Your task to perform on an android device: open app "Google News" (install if not already installed) Image 0: 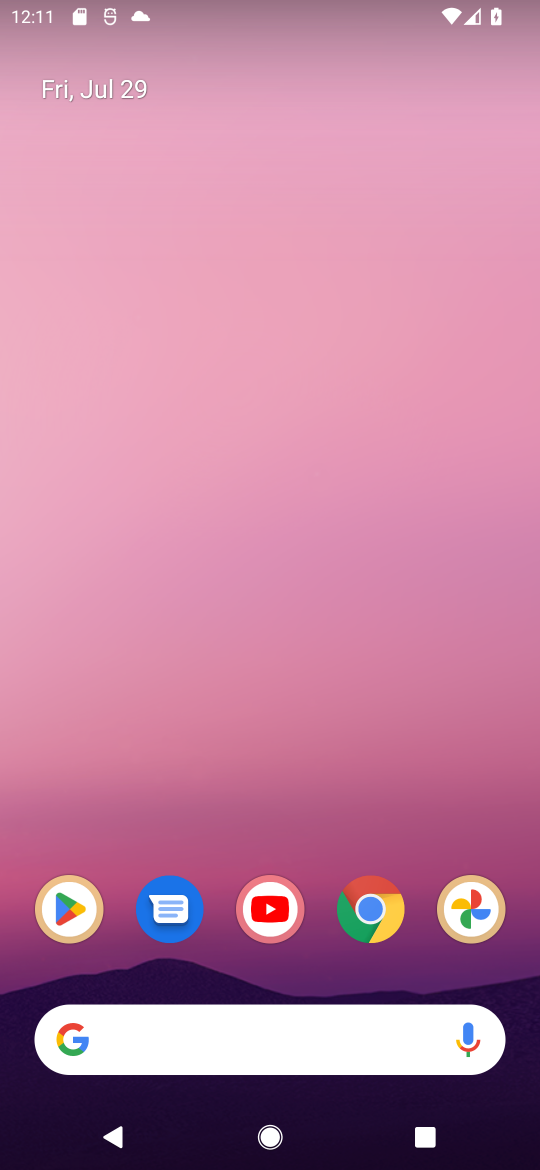
Step 0: press home button
Your task to perform on an android device: open app "Google News" (install if not already installed) Image 1: 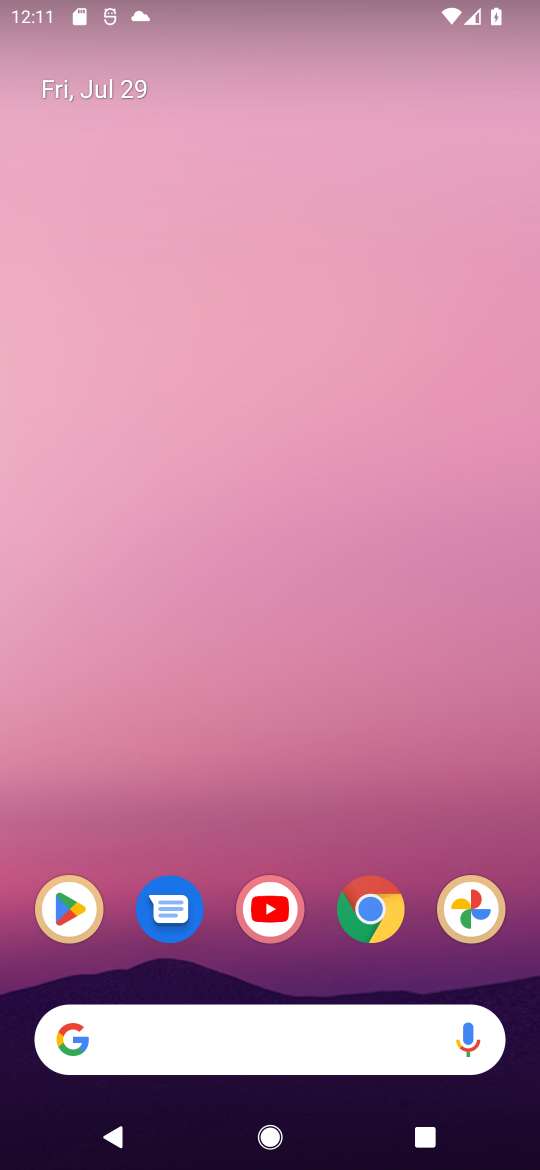
Step 1: click (60, 917)
Your task to perform on an android device: open app "Google News" (install if not already installed) Image 2: 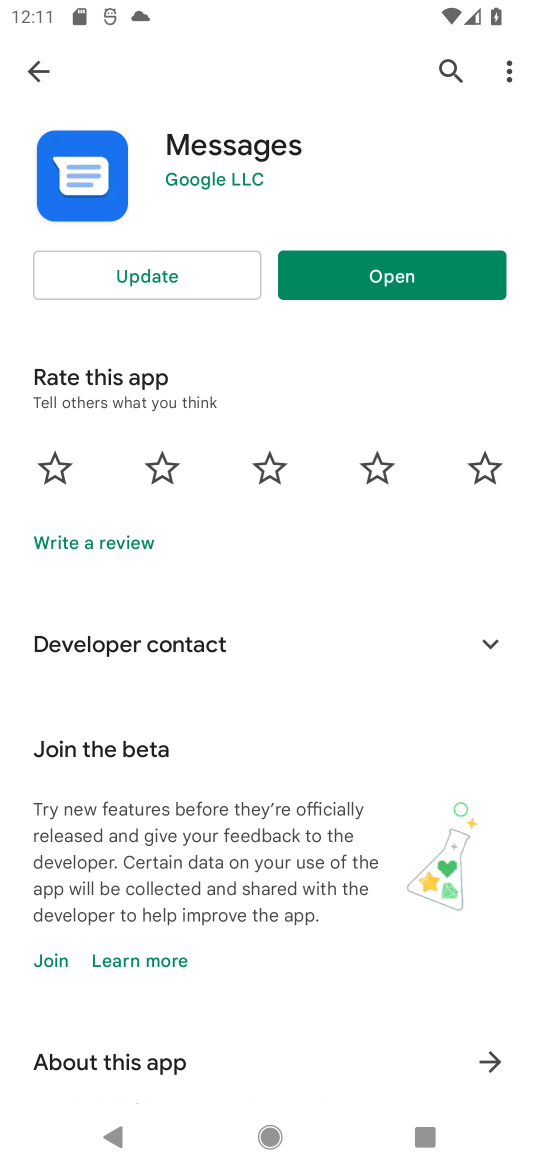
Step 2: click (453, 57)
Your task to perform on an android device: open app "Google News" (install if not already installed) Image 3: 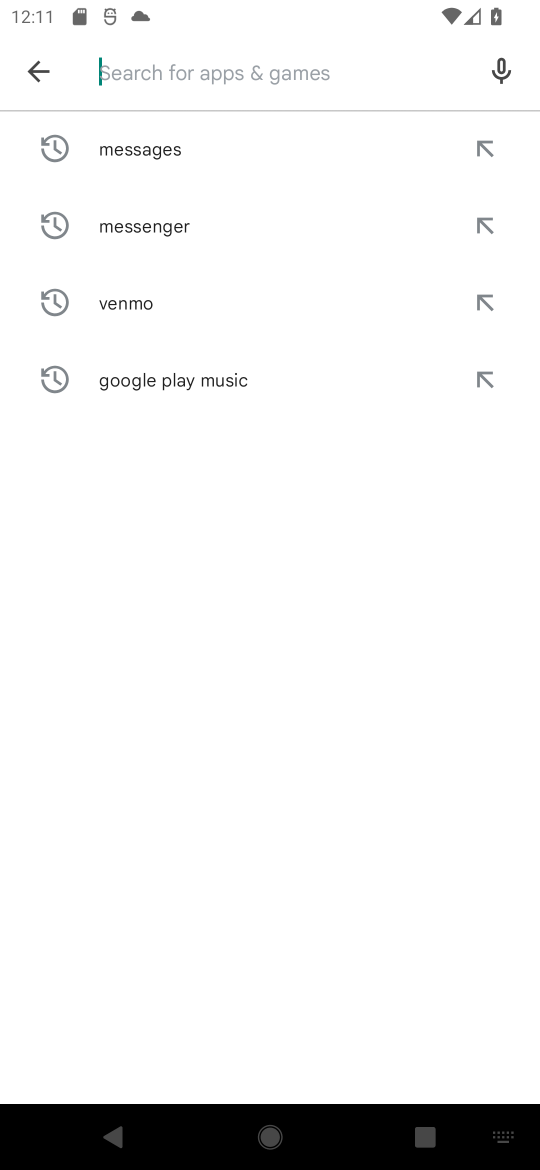
Step 3: type "Google News"
Your task to perform on an android device: open app "Google News" (install if not already installed) Image 4: 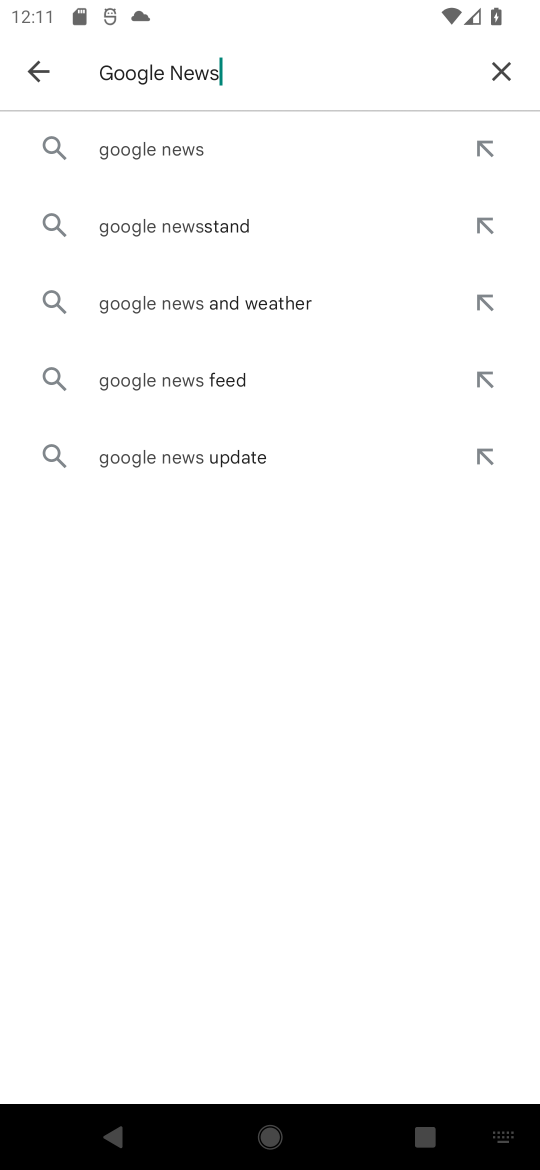
Step 4: click (148, 151)
Your task to perform on an android device: open app "Google News" (install if not already installed) Image 5: 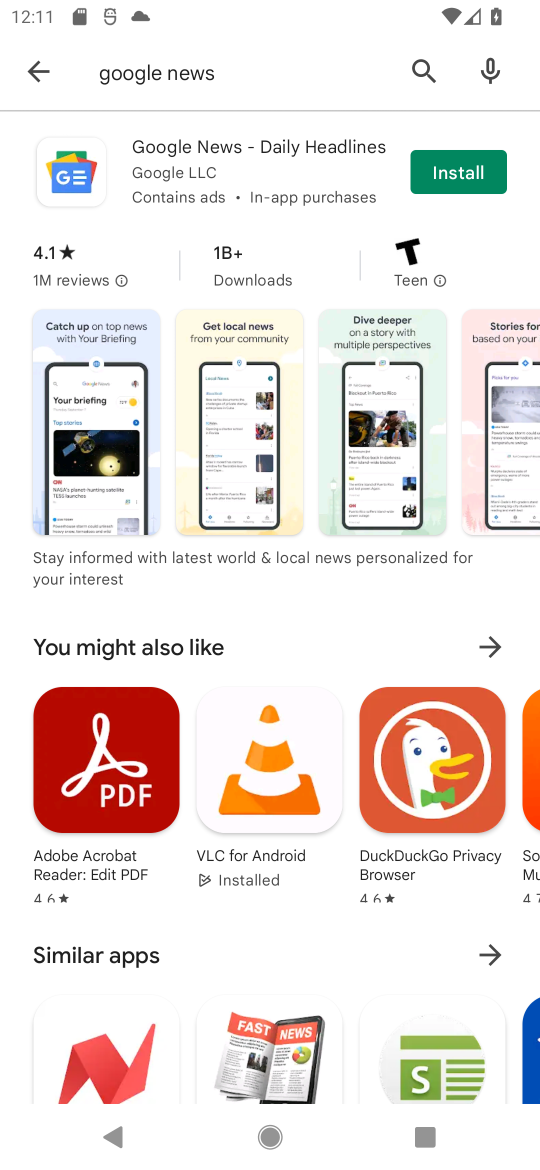
Step 5: click (447, 179)
Your task to perform on an android device: open app "Google News" (install if not already installed) Image 6: 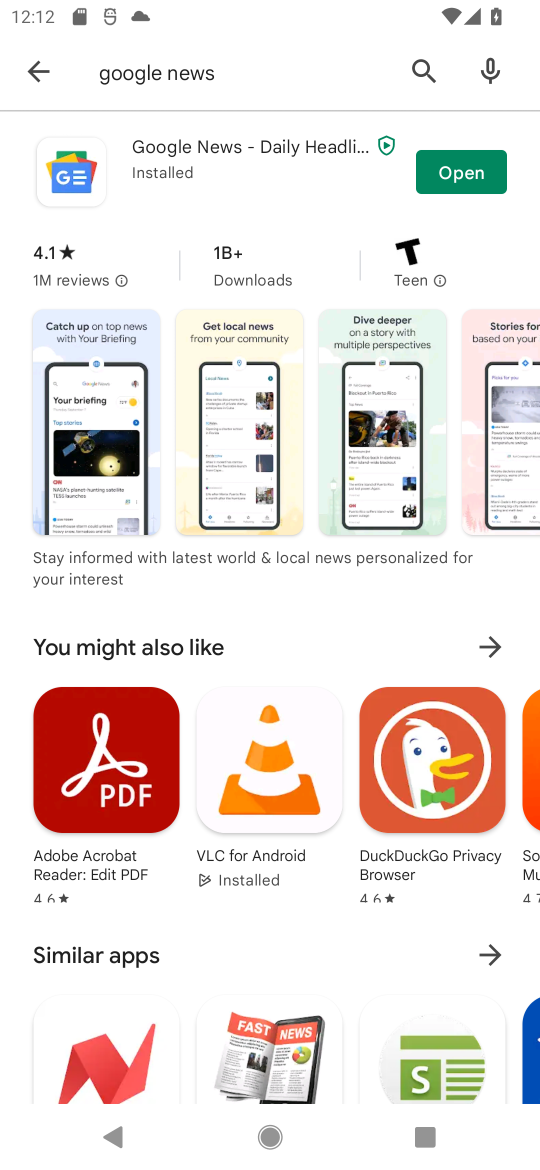
Step 6: click (442, 175)
Your task to perform on an android device: open app "Google News" (install if not already installed) Image 7: 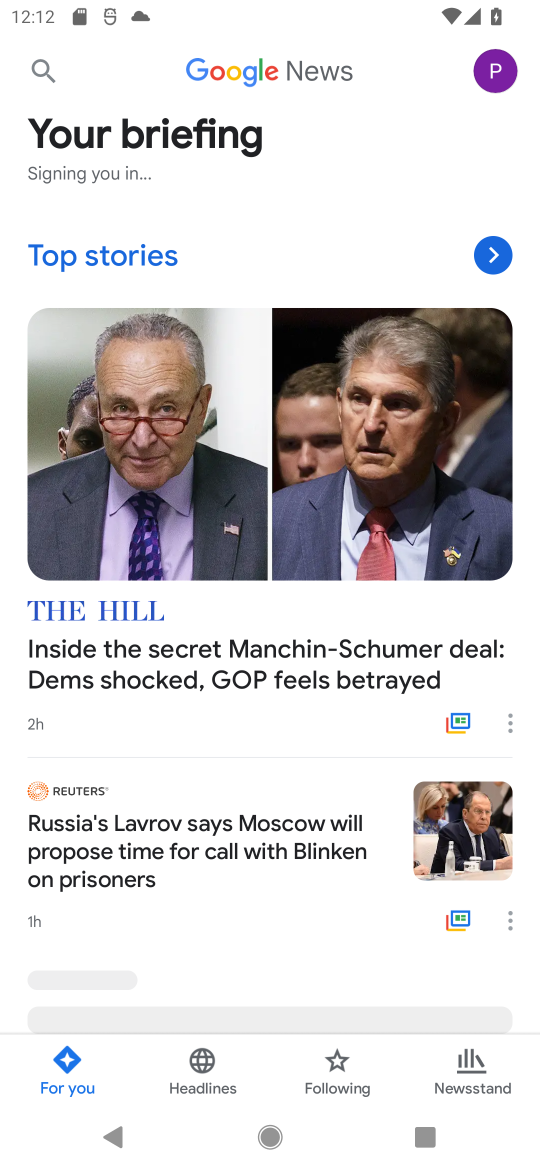
Step 7: task complete